Your task to perform on an android device: add a contact in the contacts app Image 0: 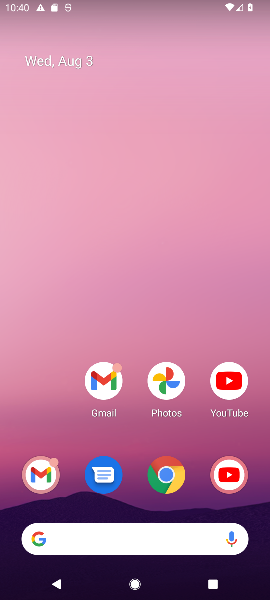
Step 0: drag from (204, 511) to (259, 122)
Your task to perform on an android device: add a contact in the contacts app Image 1: 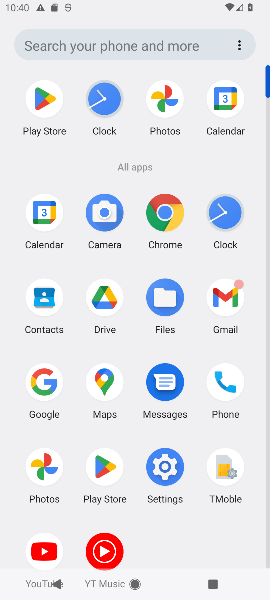
Step 1: click (56, 297)
Your task to perform on an android device: add a contact in the contacts app Image 2: 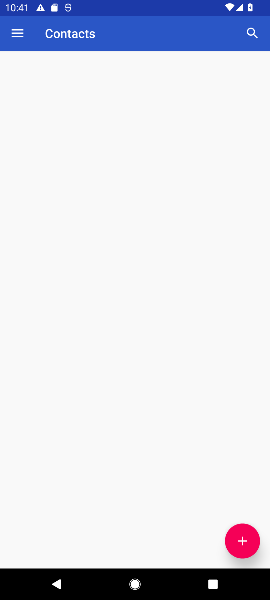
Step 2: click (243, 545)
Your task to perform on an android device: add a contact in the contacts app Image 3: 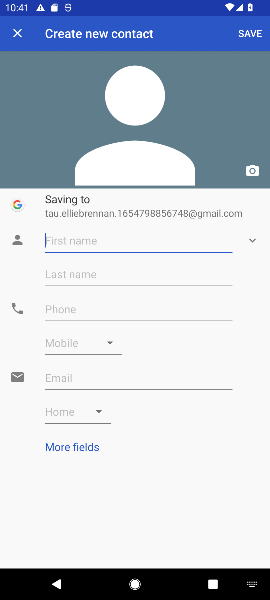
Step 3: type "uytdcvgh"
Your task to perform on an android device: add a contact in the contacts app Image 4: 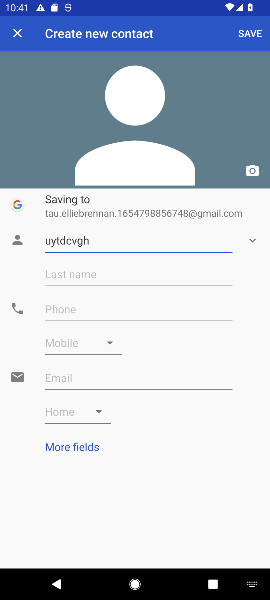
Step 4: click (110, 275)
Your task to perform on an android device: add a contact in the contacts app Image 5: 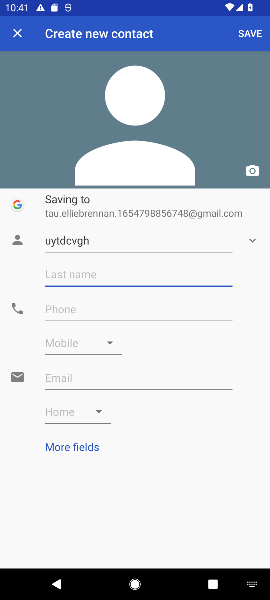
Step 5: click (101, 312)
Your task to perform on an android device: add a contact in the contacts app Image 6: 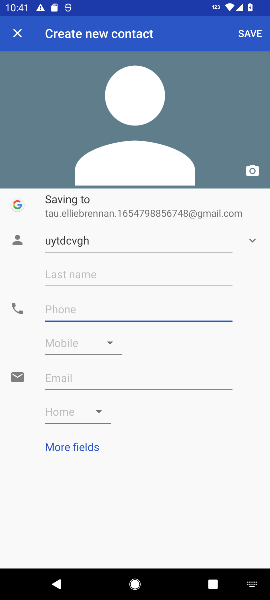
Step 6: type "987654678"
Your task to perform on an android device: add a contact in the contacts app Image 7: 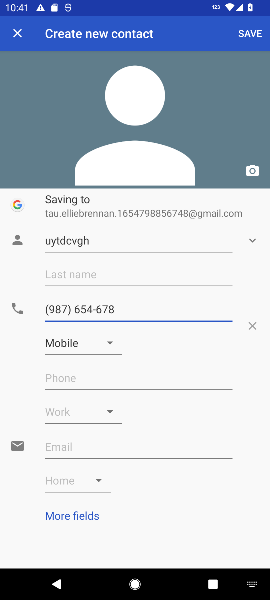
Step 7: click (254, 23)
Your task to perform on an android device: add a contact in the contacts app Image 8: 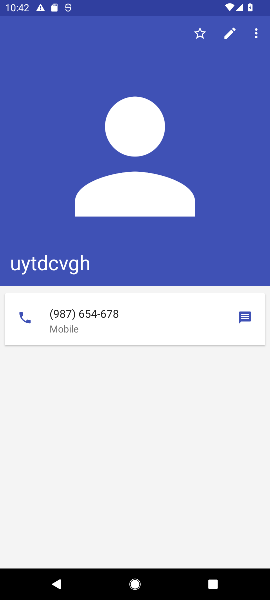
Step 8: task complete